Your task to perform on an android device: Open internet settings Image 0: 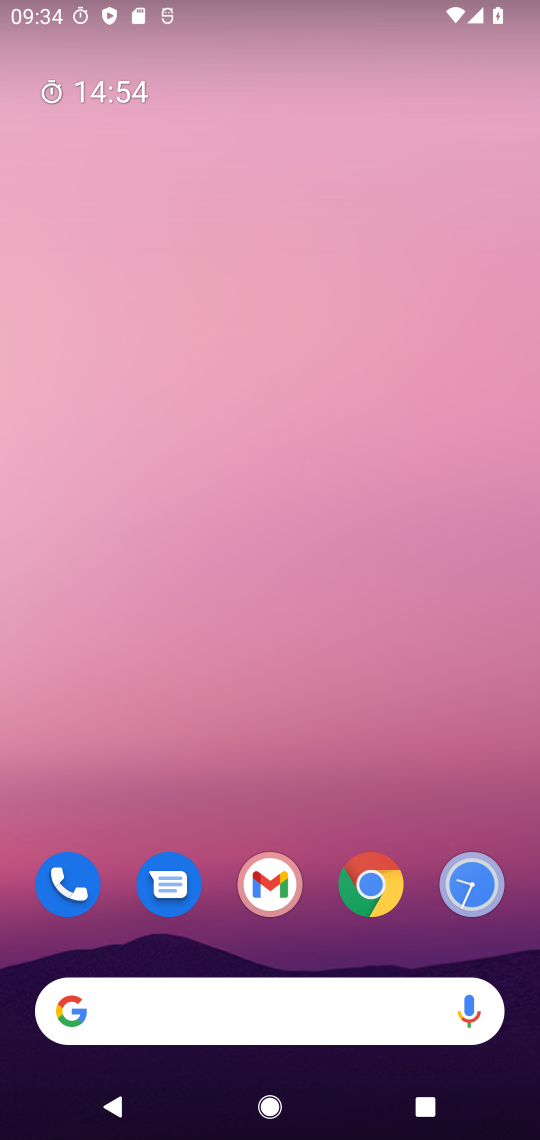
Step 0: drag from (303, 732) to (288, 278)
Your task to perform on an android device: Open internet settings Image 1: 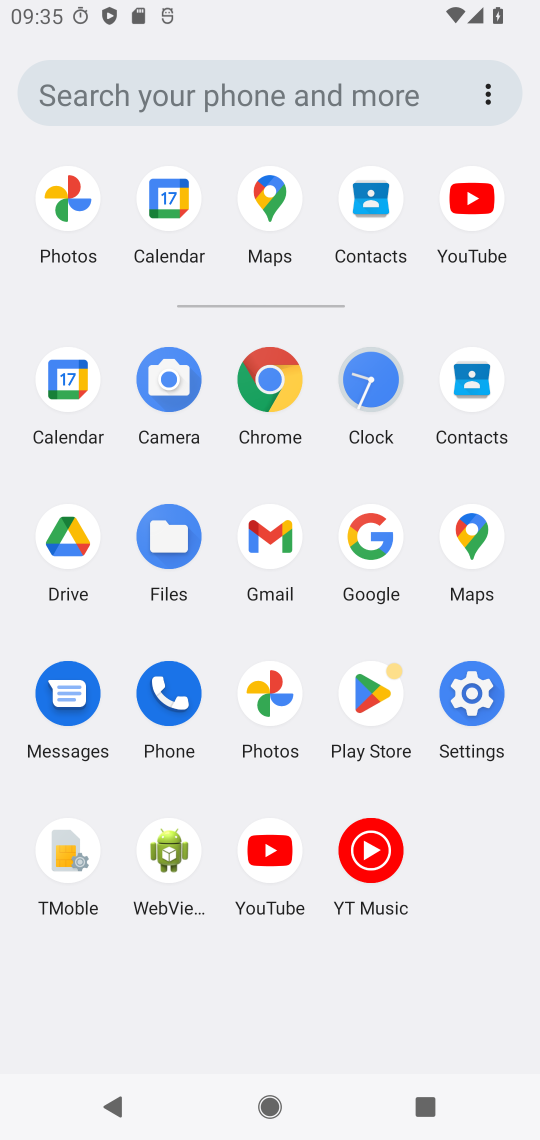
Step 1: click (473, 699)
Your task to perform on an android device: Open internet settings Image 2: 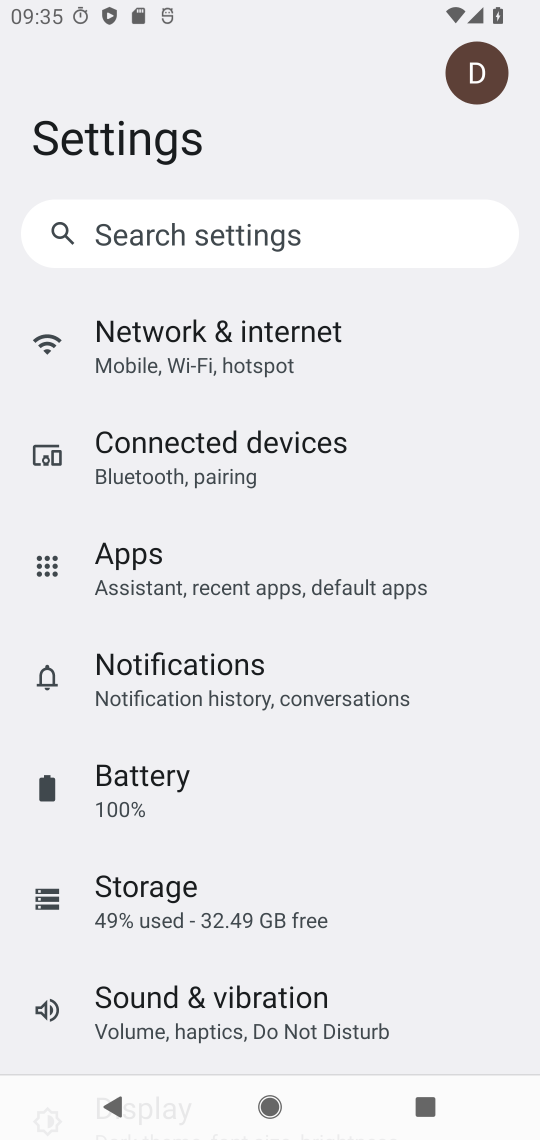
Step 2: click (209, 355)
Your task to perform on an android device: Open internet settings Image 3: 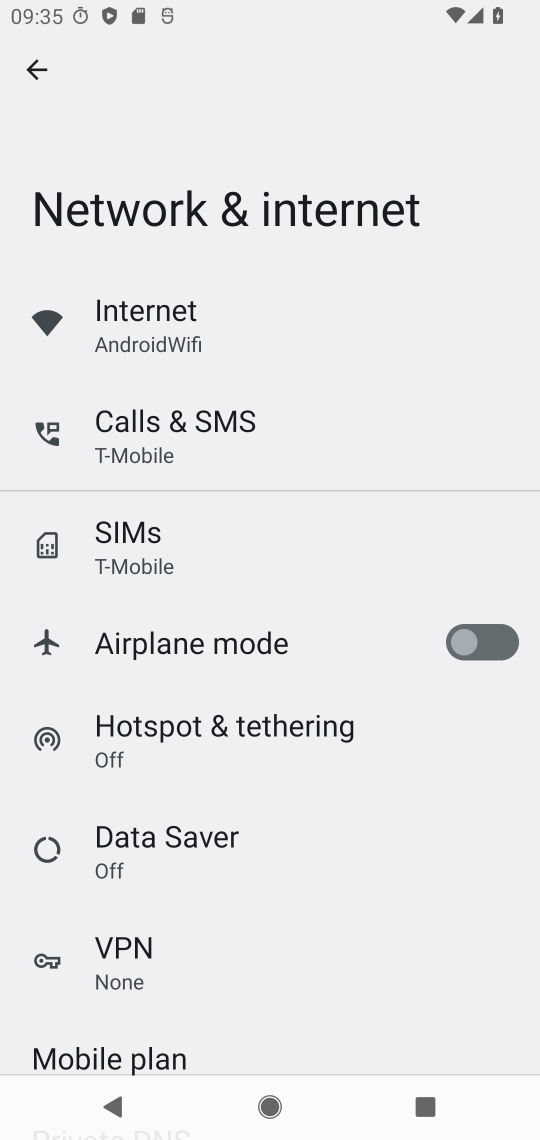
Step 3: click (180, 338)
Your task to perform on an android device: Open internet settings Image 4: 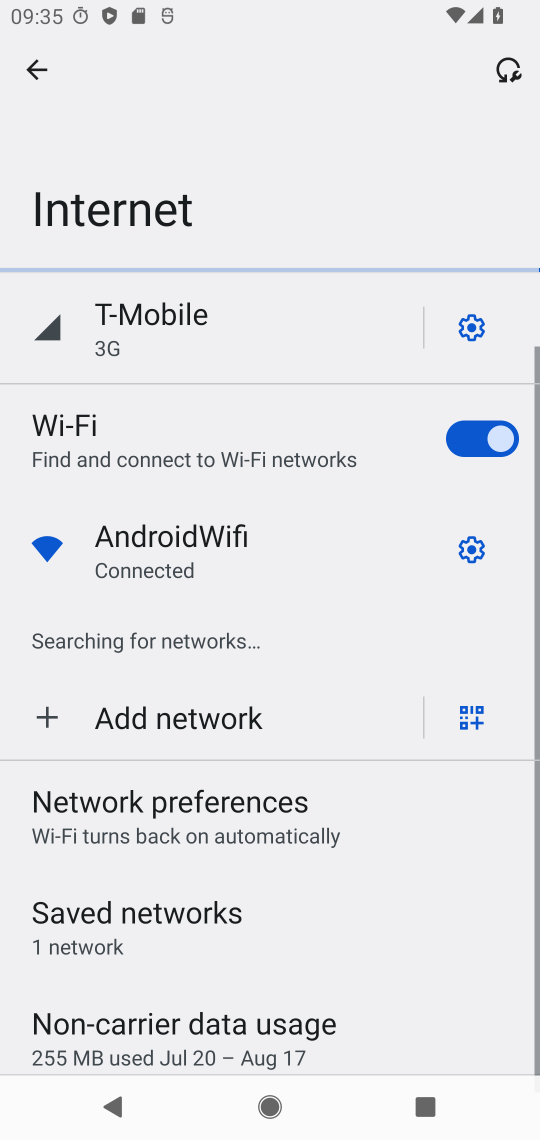
Step 4: task complete